Your task to perform on an android device: set an alarm Image 0: 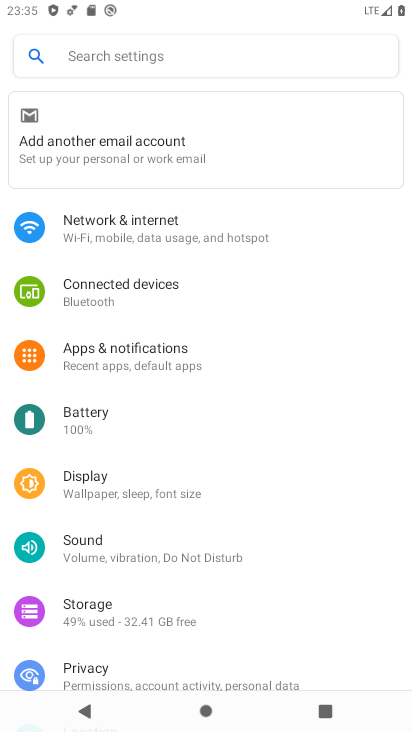
Step 0: press home button
Your task to perform on an android device: set an alarm Image 1: 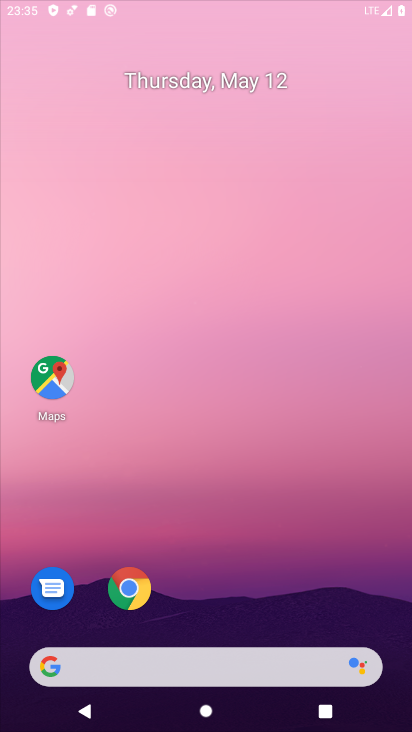
Step 1: drag from (216, 586) to (230, 215)
Your task to perform on an android device: set an alarm Image 2: 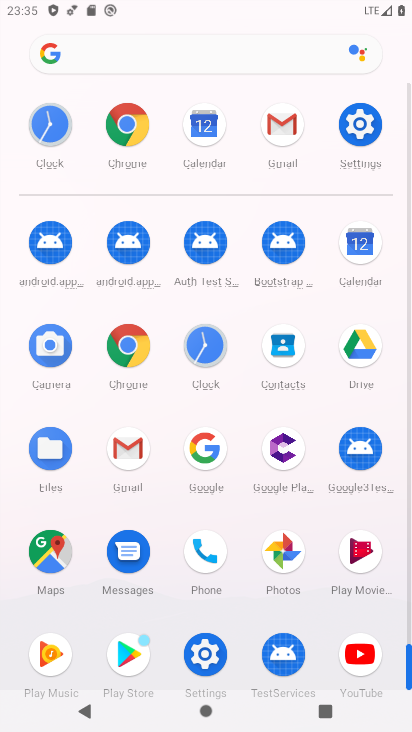
Step 2: click (198, 357)
Your task to perform on an android device: set an alarm Image 3: 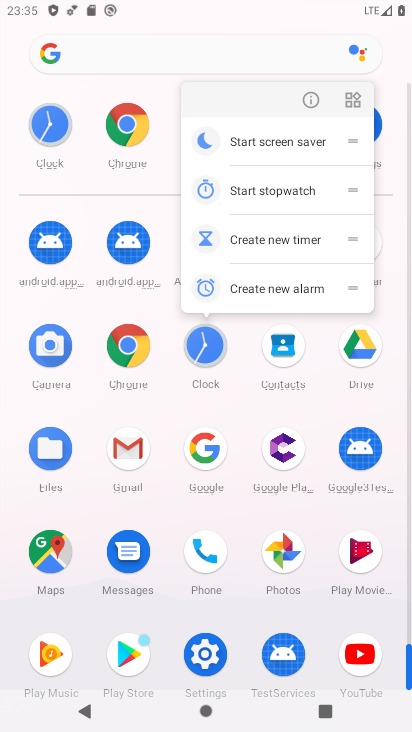
Step 3: click (315, 114)
Your task to perform on an android device: set an alarm Image 4: 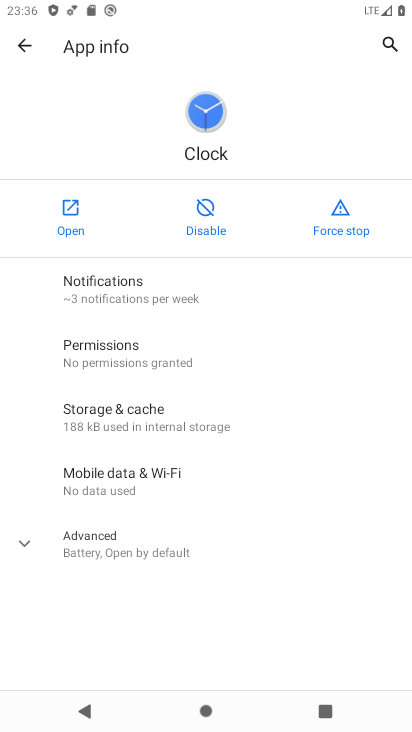
Step 4: click (67, 211)
Your task to perform on an android device: set an alarm Image 5: 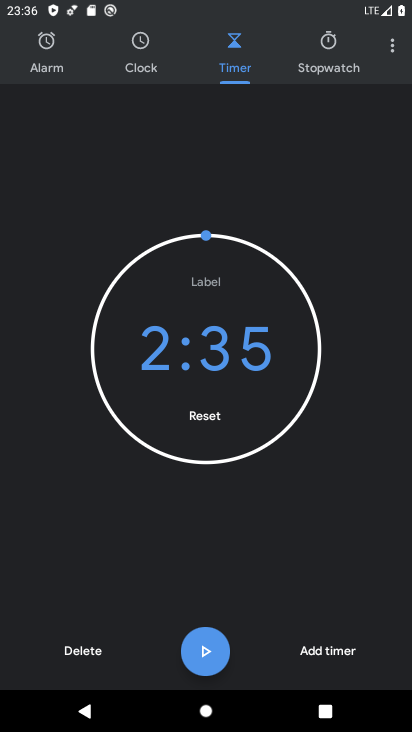
Step 5: click (66, 48)
Your task to perform on an android device: set an alarm Image 6: 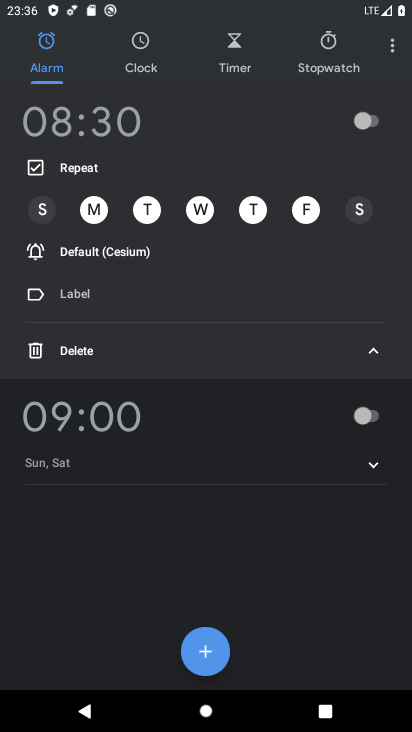
Step 6: click (356, 133)
Your task to perform on an android device: set an alarm Image 7: 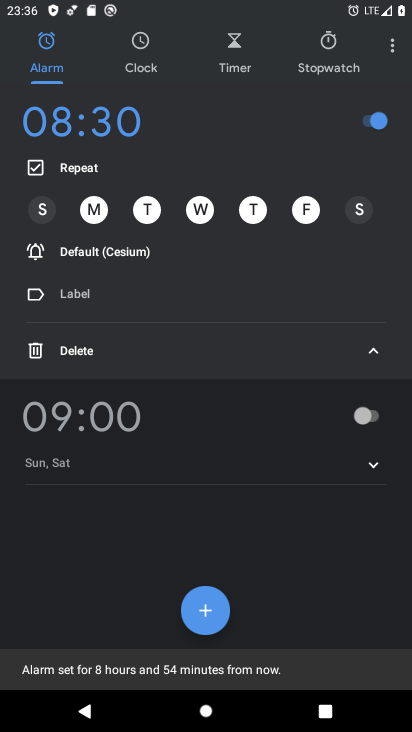
Step 7: task complete